Your task to perform on an android device: create a new album in the google photos Image 0: 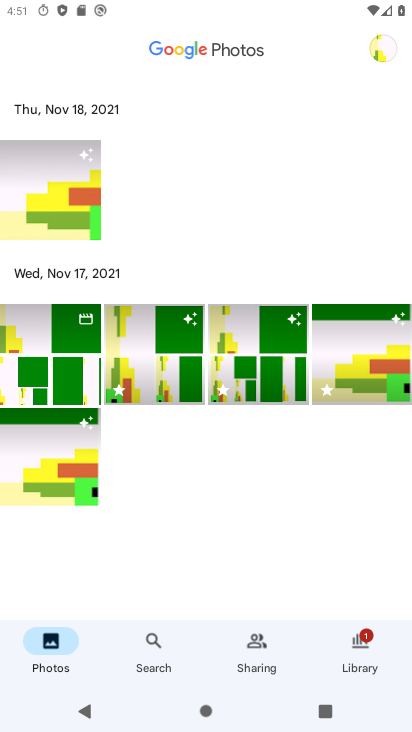
Step 0: press home button
Your task to perform on an android device: create a new album in the google photos Image 1: 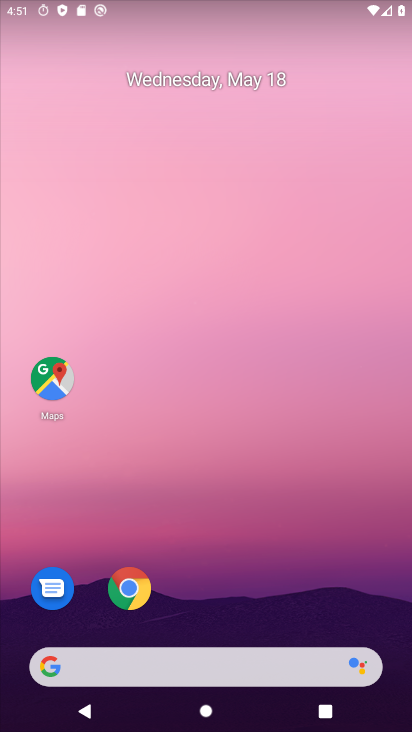
Step 1: drag from (263, 616) to (359, 106)
Your task to perform on an android device: create a new album in the google photos Image 2: 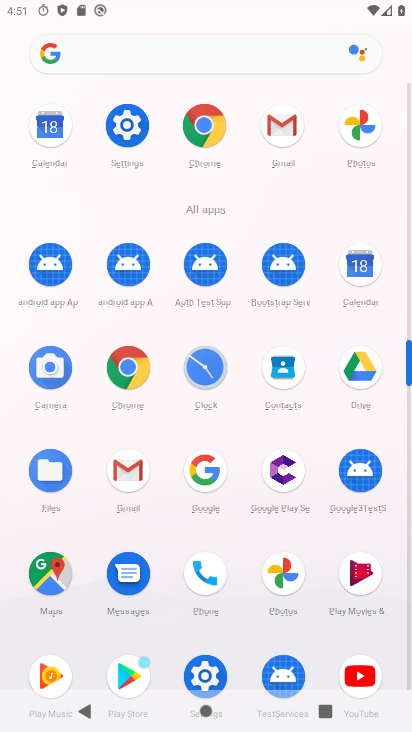
Step 2: click (352, 129)
Your task to perform on an android device: create a new album in the google photos Image 3: 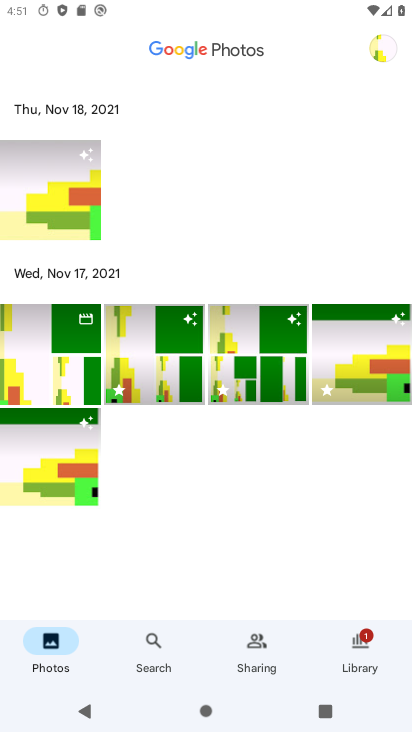
Step 3: click (23, 324)
Your task to perform on an android device: create a new album in the google photos Image 4: 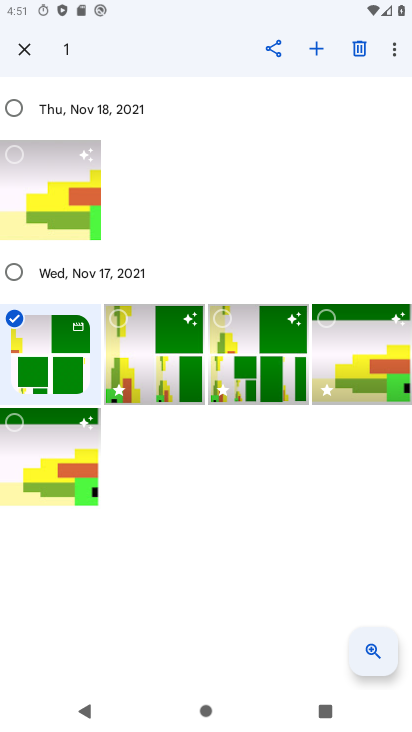
Step 4: click (137, 334)
Your task to perform on an android device: create a new album in the google photos Image 5: 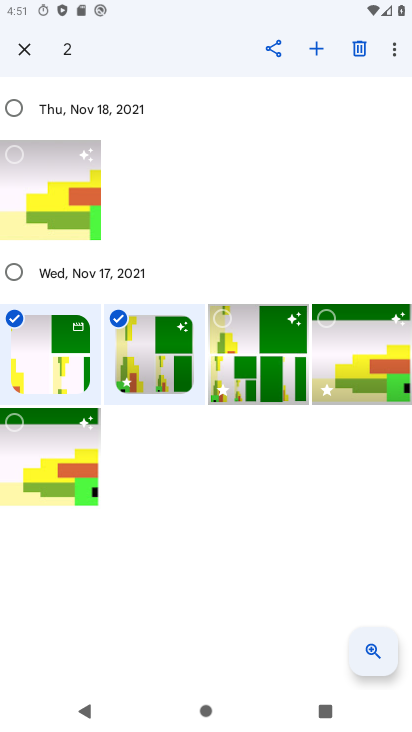
Step 5: click (230, 327)
Your task to perform on an android device: create a new album in the google photos Image 6: 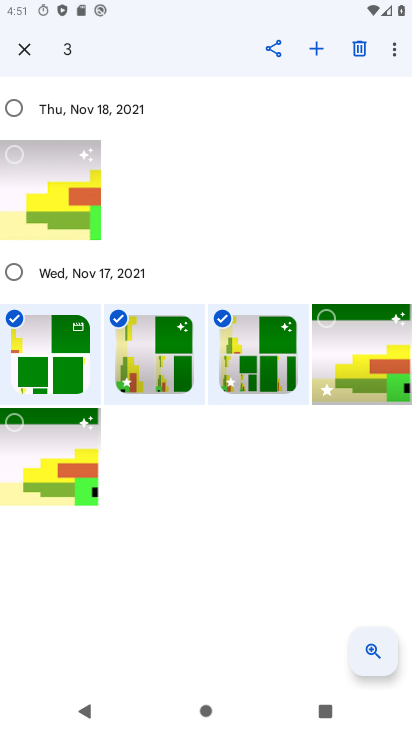
Step 6: click (342, 330)
Your task to perform on an android device: create a new album in the google photos Image 7: 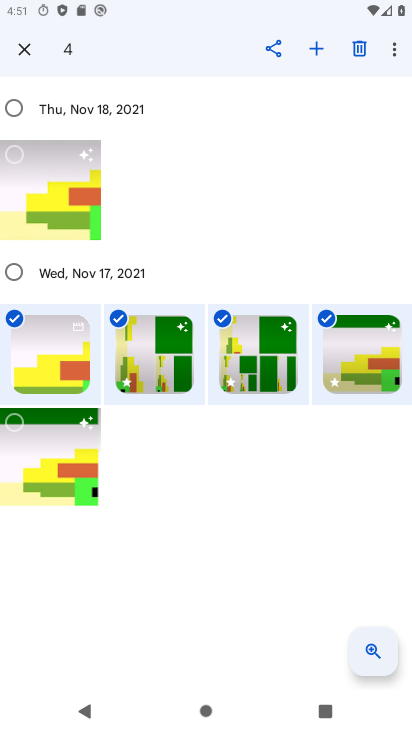
Step 7: drag from (323, 330) to (328, 251)
Your task to perform on an android device: create a new album in the google photos Image 8: 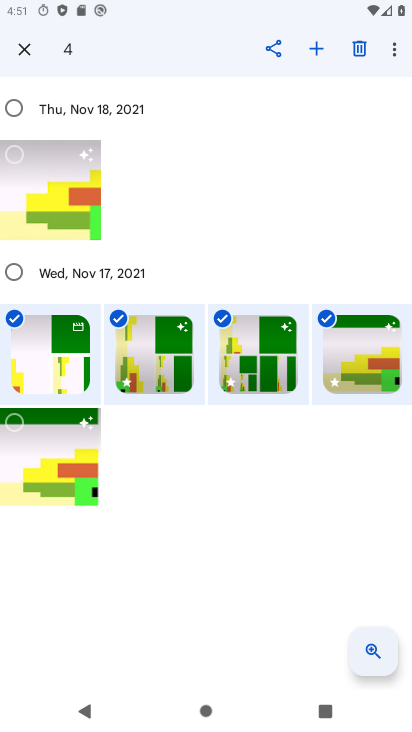
Step 8: click (308, 42)
Your task to perform on an android device: create a new album in the google photos Image 9: 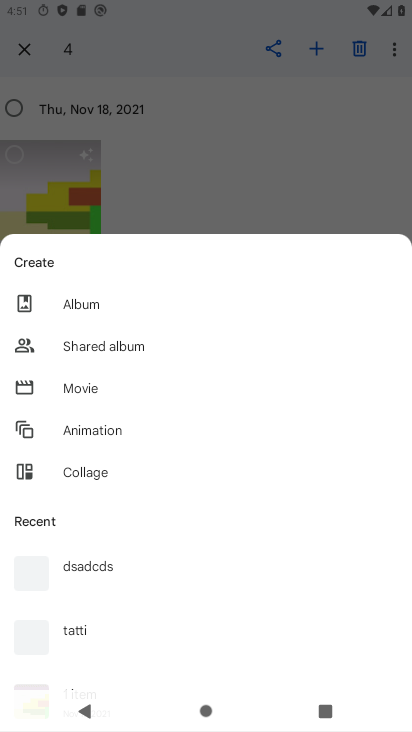
Step 9: click (93, 300)
Your task to perform on an android device: create a new album in the google photos Image 10: 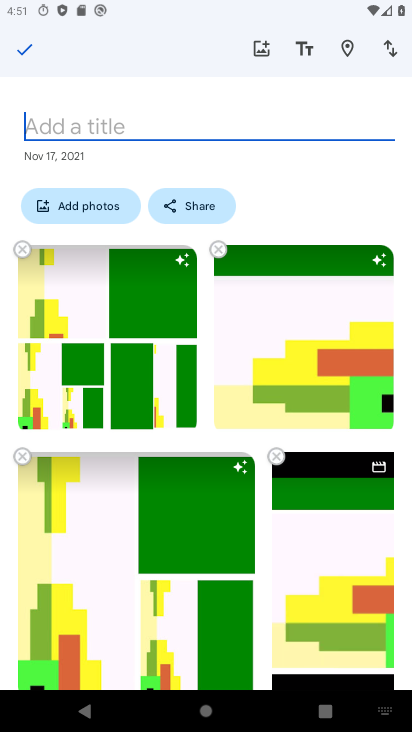
Step 10: type "alov"
Your task to perform on an android device: create a new album in the google photos Image 11: 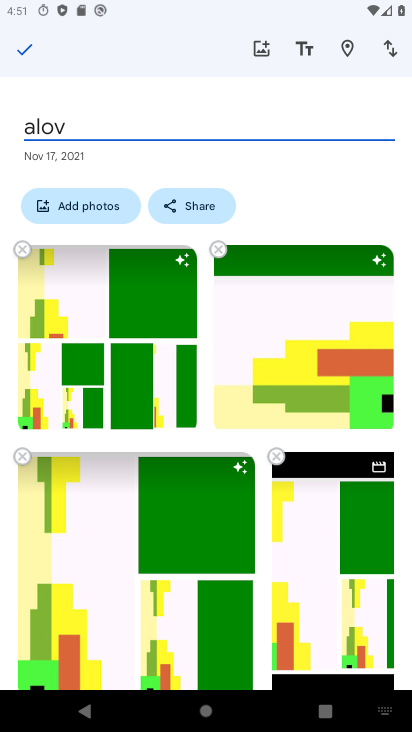
Step 11: click (30, 54)
Your task to perform on an android device: create a new album in the google photos Image 12: 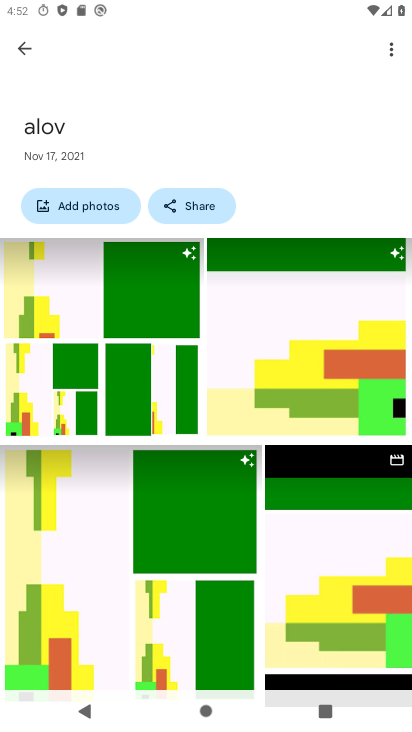
Step 12: task complete